Your task to perform on an android device: change the clock display to digital Image 0: 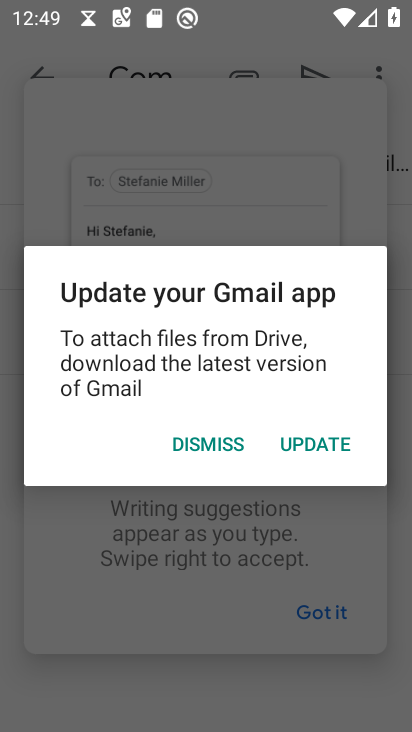
Step 0: press home button
Your task to perform on an android device: change the clock display to digital Image 1: 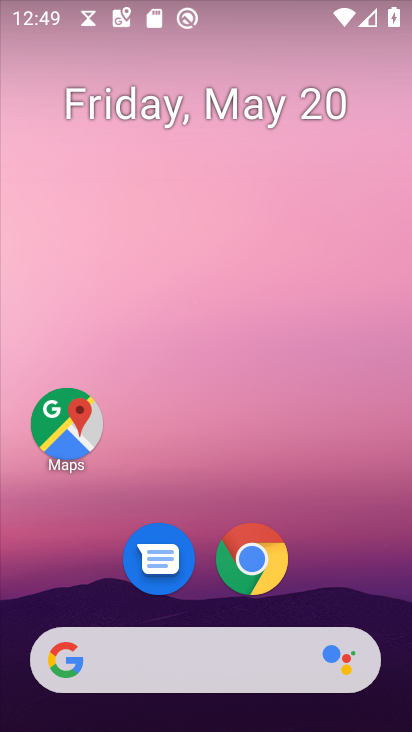
Step 1: drag from (328, 522) to (337, 113)
Your task to perform on an android device: change the clock display to digital Image 2: 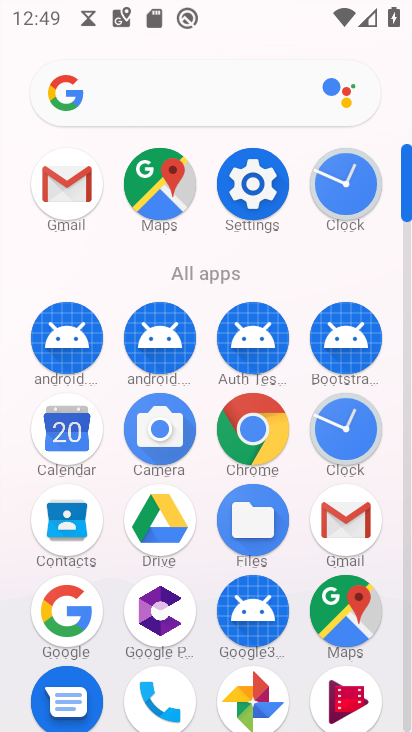
Step 2: click (329, 429)
Your task to perform on an android device: change the clock display to digital Image 3: 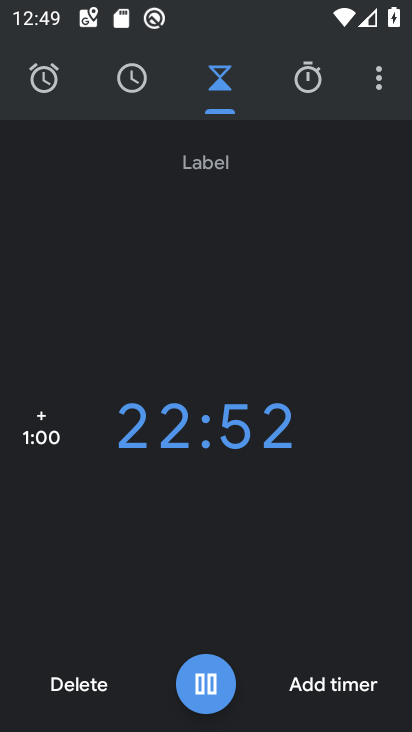
Step 3: click (391, 89)
Your task to perform on an android device: change the clock display to digital Image 4: 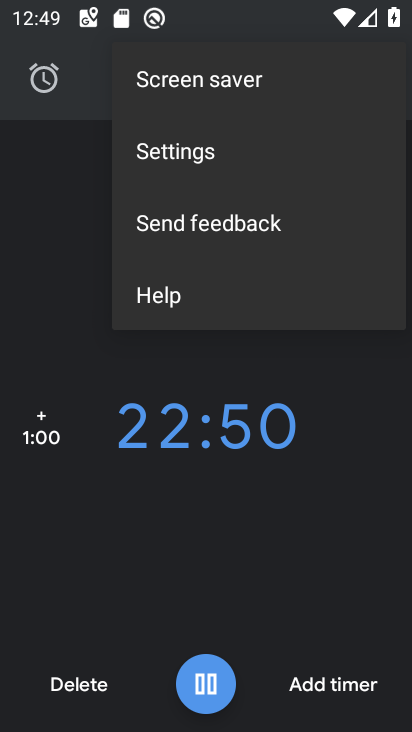
Step 4: click (285, 178)
Your task to perform on an android device: change the clock display to digital Image 5: 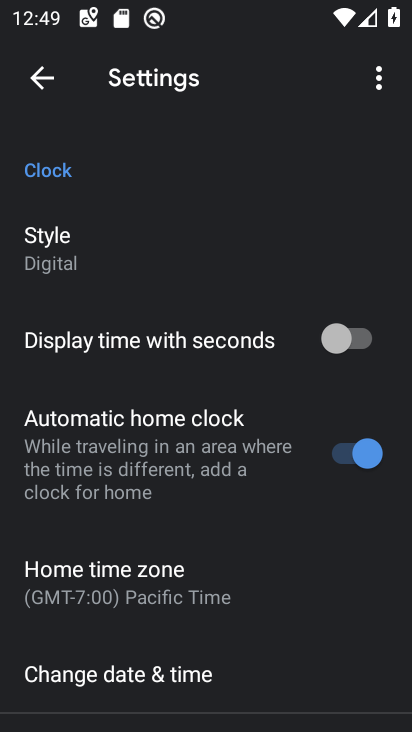
Step 5: task complete